Your task to perform on an android device: toggle show notifications on the lock screen Image 0: 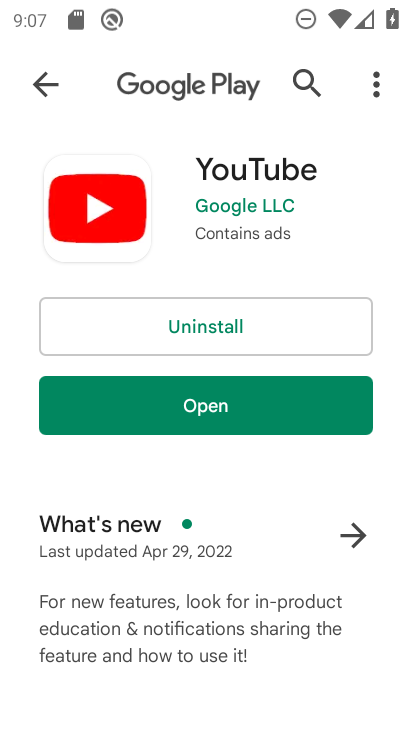
Step 0: press home button
Your task to perform on an android device: toggle show notifications on the lock screen Image 1: 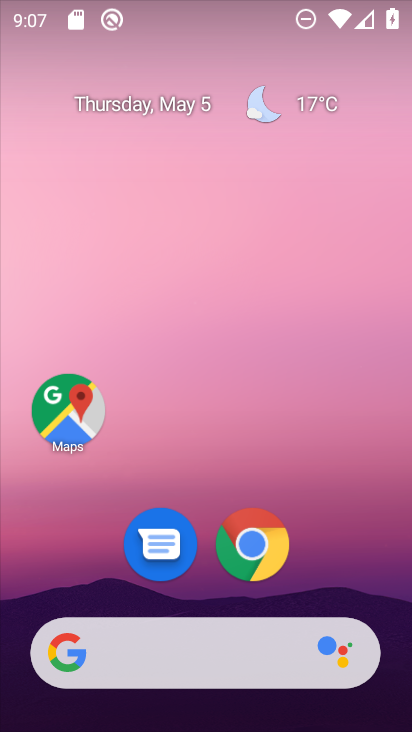
Step 1: drag from (386, 639) to (299, 61)
Your task to perform on an android device: toggle show notifications on the lock screen Image 2: 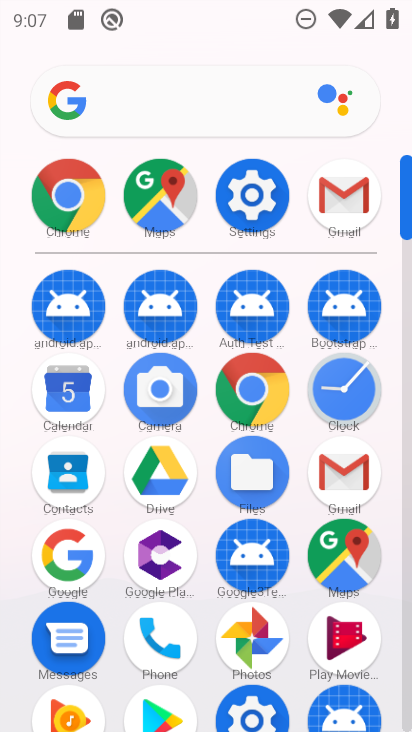
Step 2: click (255, 222)
Your task to perform on an android device: toggle show notifications on the lock screen Image 3: 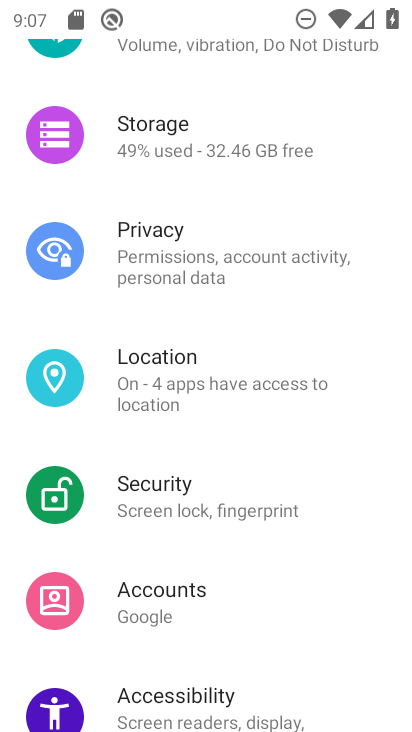
Step 3: drag from (270, 84) to (288, 616)
Your task to perform on an android device: toggle show notifications on the lock screen Image 4: 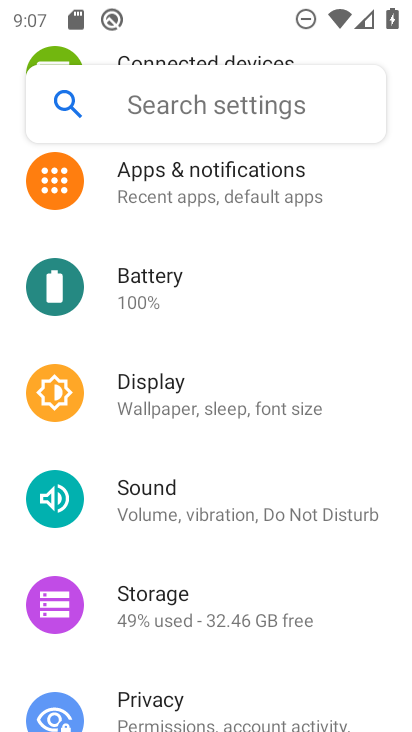
Step 4: click (199, 198)
Your task to perform on an android device: toggle show notifications on the lock screen Image 5: 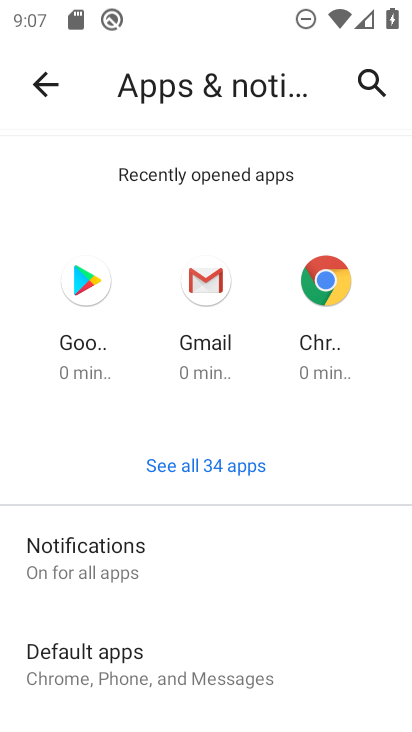
Step 5: click (181, 590)
Your task to perform on an android device: toggle show notifications on the lock screen Image 6: 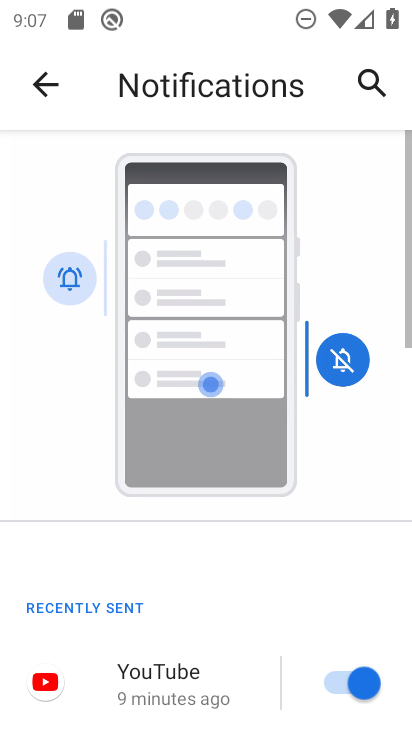
Step 6: drag from (170, 682) to (213, 88)
Your task to perform on an android device: toggle show notifications on the lock screen Image 7: 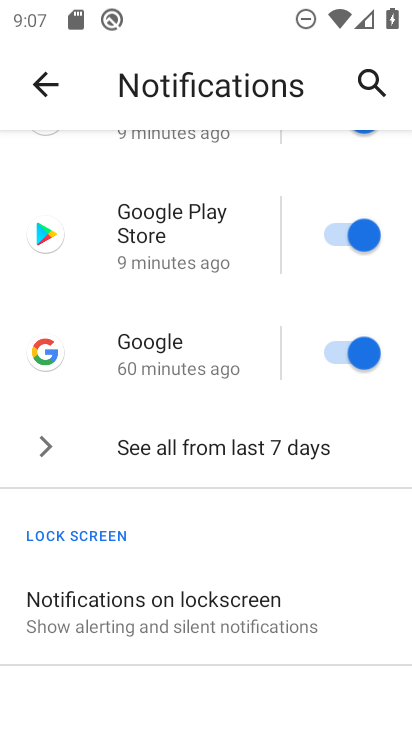
Step 7: click (242, 629)
Your task to perform on an android device: toggle show notifications on the lock screen Image 8: 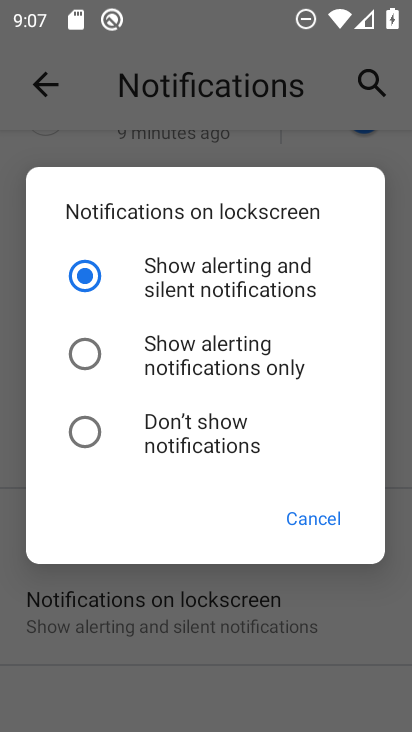
Step 8: click (176, 358)
Your task to perform on an android device: toggle show notifications on the lock screen Image 9: 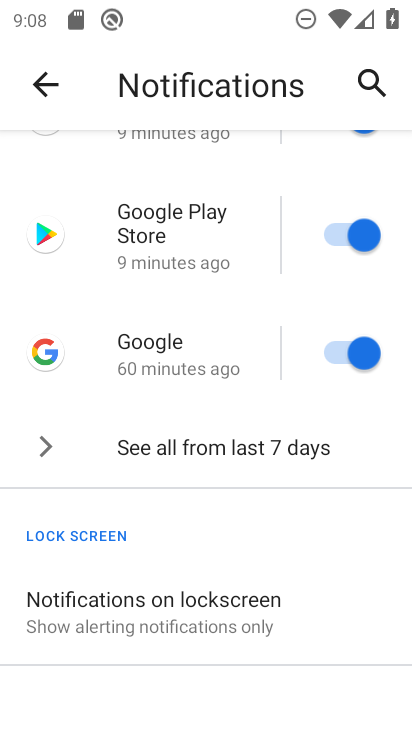
Step 9: task complete